Your task to perform on an android device: Go to Wikipedia Image 0: 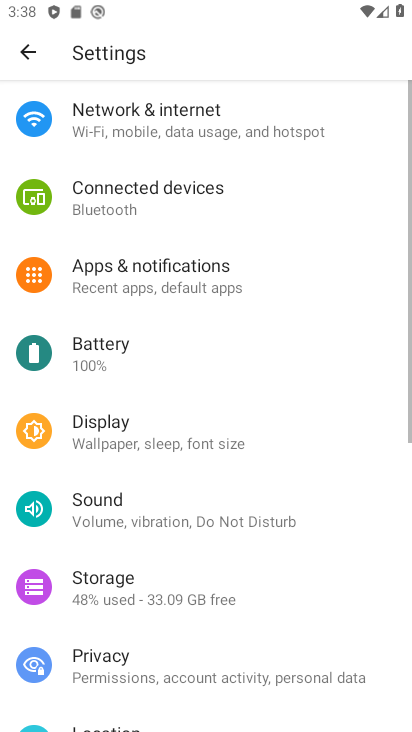
Step 0: press home button
Your task to perform on an android device: Go to Wikipedia Image 1: 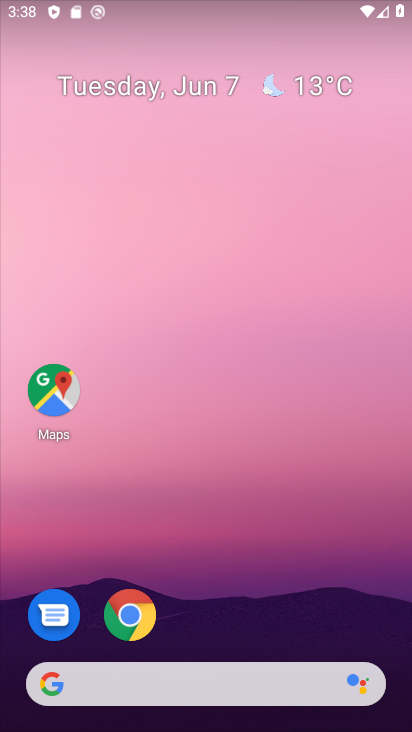
Step 1: click (127, 626)
Your task to perform on an android device: Go to Wikipedia Image 2: 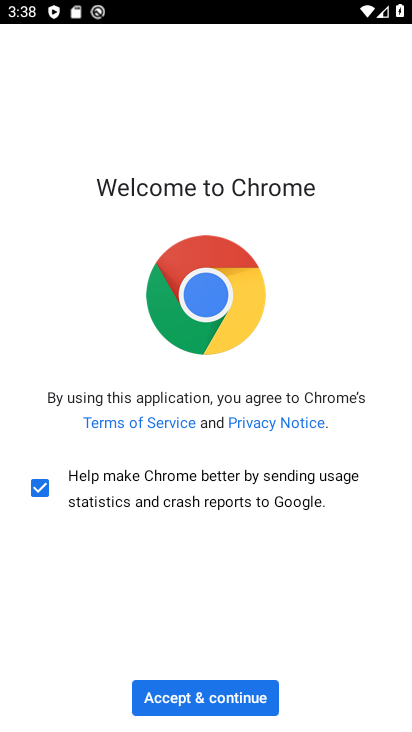
Step 2: click (214, 704)
Your task to perform on an android device: Go to Wikipedia Image 3: 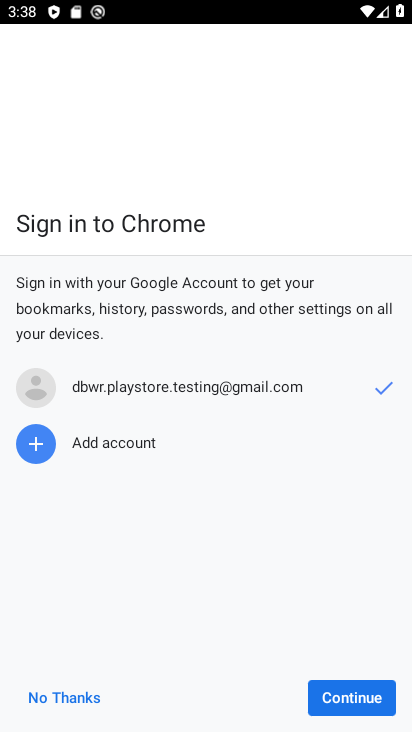
Step 3: click (372, 696)
Your task to perform on an android device: Go to Wikipedia Image 4: 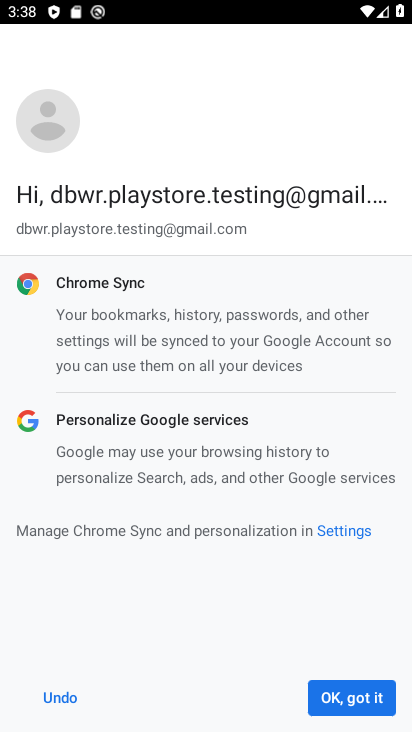
Step 4: click (371, 695)
Your task to perform on an android device: Go to Wikipedia Image 5: 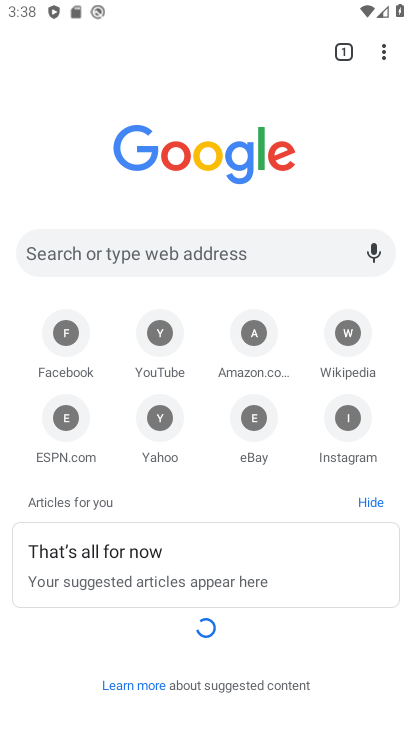
Step 5: click (353, 344)
Your task to perform on an android device: Go to Wikipedia Image 6: 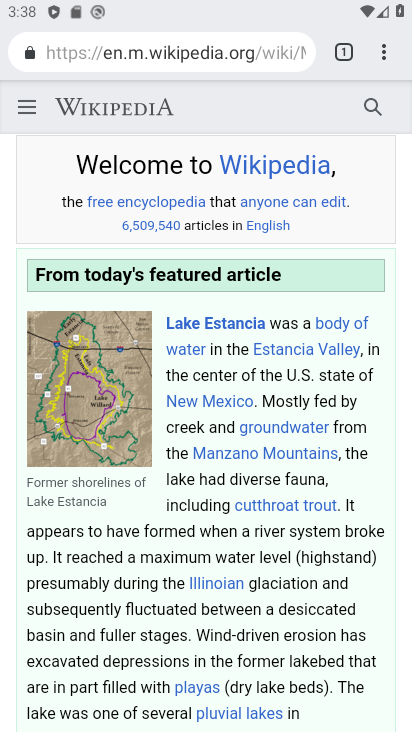
Step 6: task complete